Your task to perform on an android device: Open Maps and search for coffee Image 0: 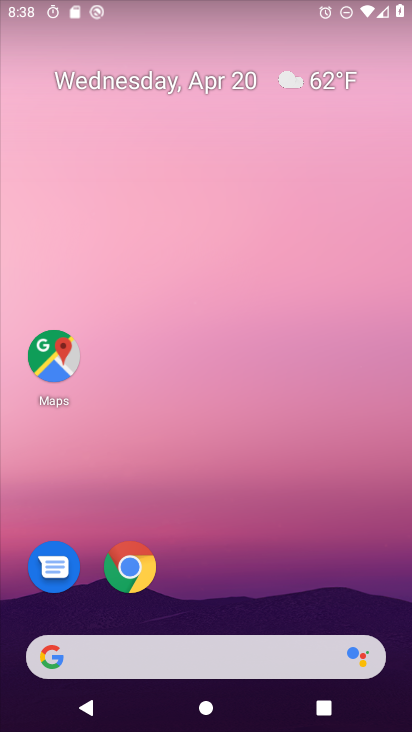
Step 0: click (51, 360)
Your task to perform on an android device: Open Maps and search for coffee Image 1: 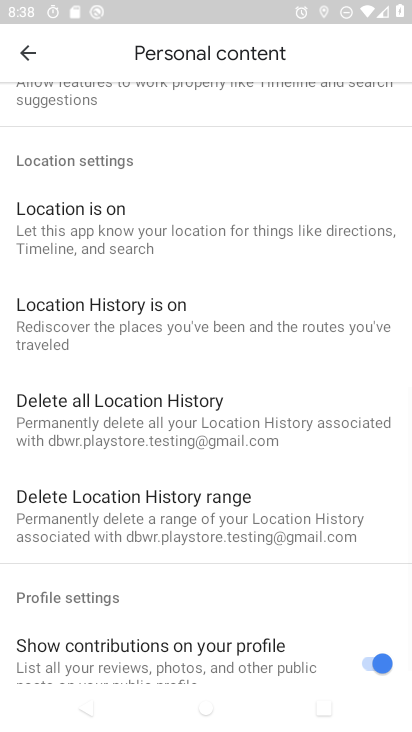
Step 1: click (25, 55)
Your task to perform on an android device: Open Maps and search for coffee Image 2: 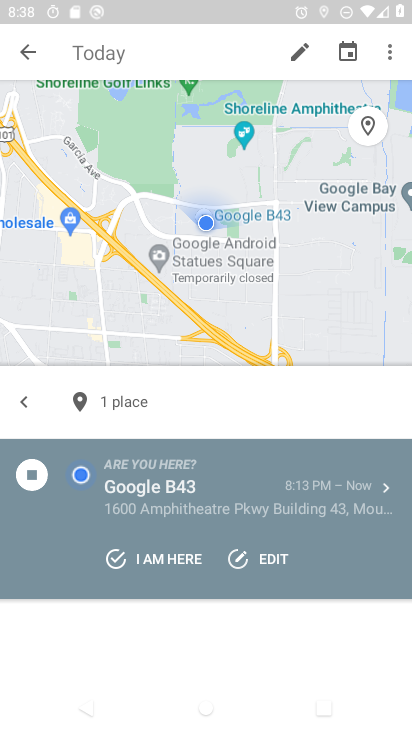
Step 2: click (28, 60)
Your task to perform on an android device: Open Maps and search for coffee Image 3: 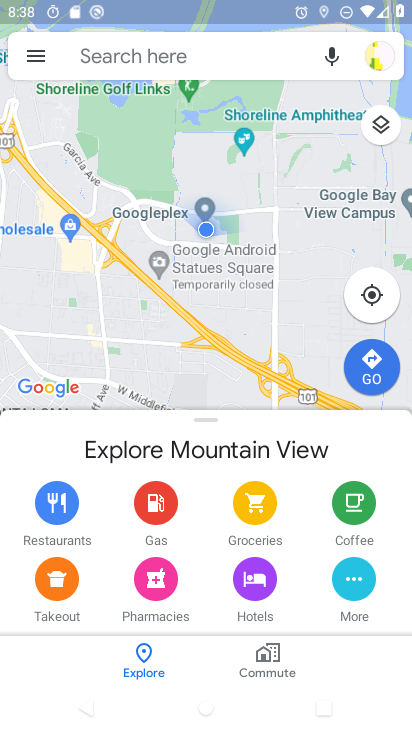
Step 3: click (150, 66)
Your task to perform on an android device: Open Maps and search for coffee Image 4: 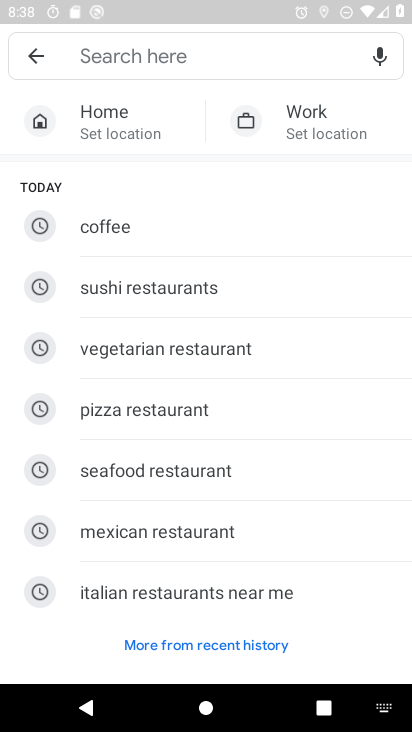
Step 4: type "coffee"
Your task to perform on an android device: Open Maps and search for coffee Image 5: 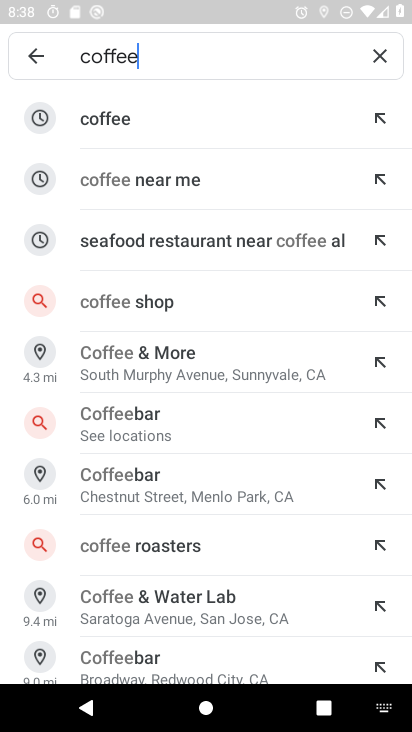
Step 5: click (121, 119)
Your task to perform on an android device: Open Maps and search for coffee Image 6: 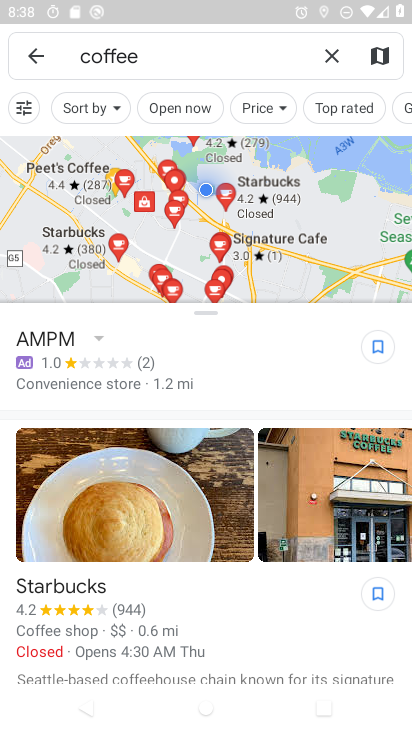
Step 6: task complete